Your task to perform on an android device: open app "Google Translate" (install if not already installed) Image 0: 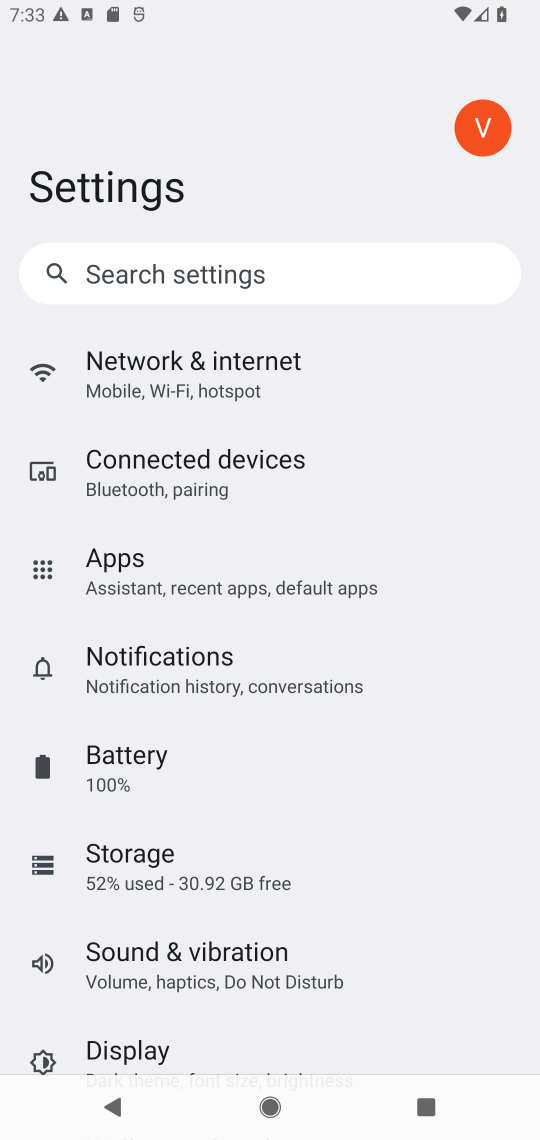
Step 0: press home button
Your task to perform on an android device: open app "Google Translate" (install if not already installed) Image 1: 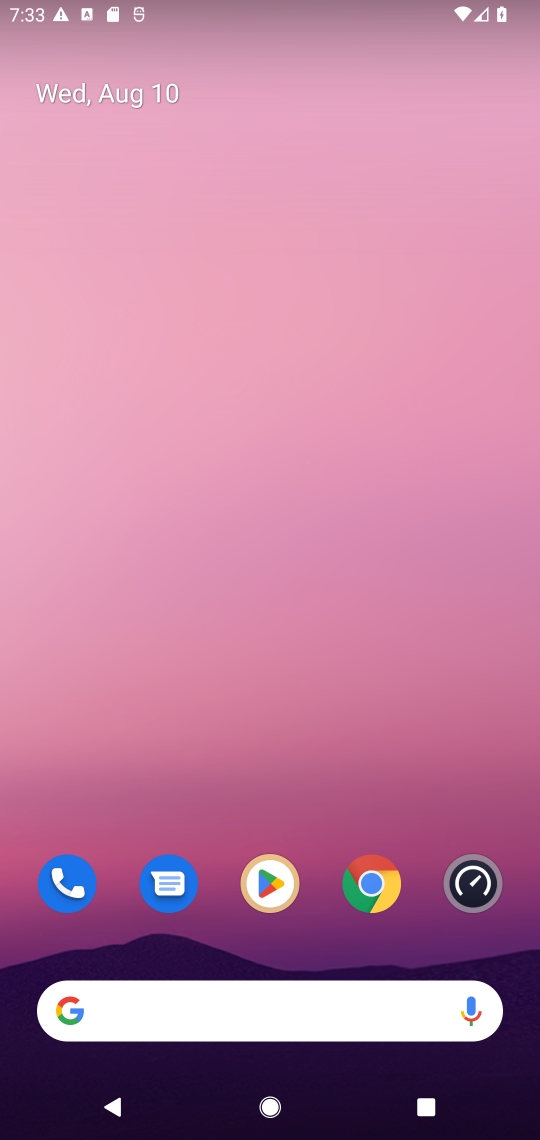
Step 1: drag from (313, 764) to (280, 83)
Your task to perform on an android device: open app "Google Translate" (install if not already installed) Image 2: 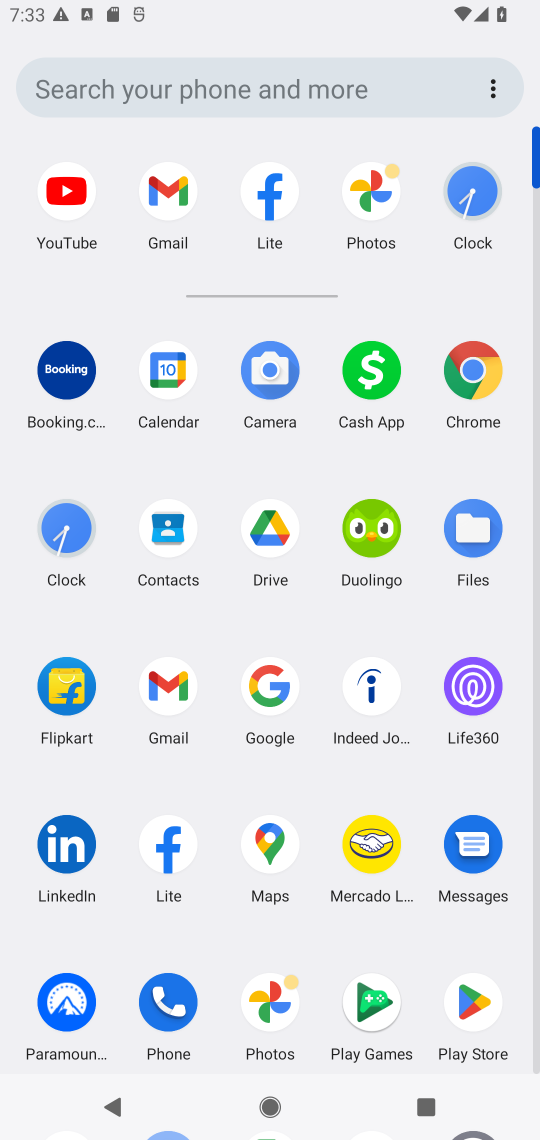
Step 2: click (476, 1001)
Your task to perform on an android device: open app "Google Translate" (install if not already installed) Image 3: 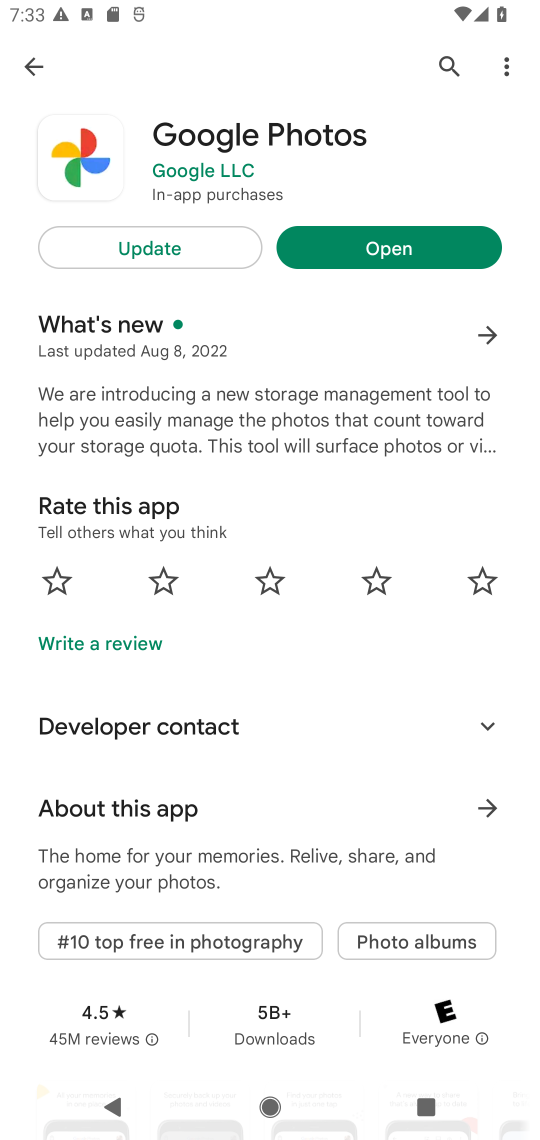
Step 3: click (453, 58)
Your task to perform on an android device: open app "Google Translate" (install if not already installed) Image 4: 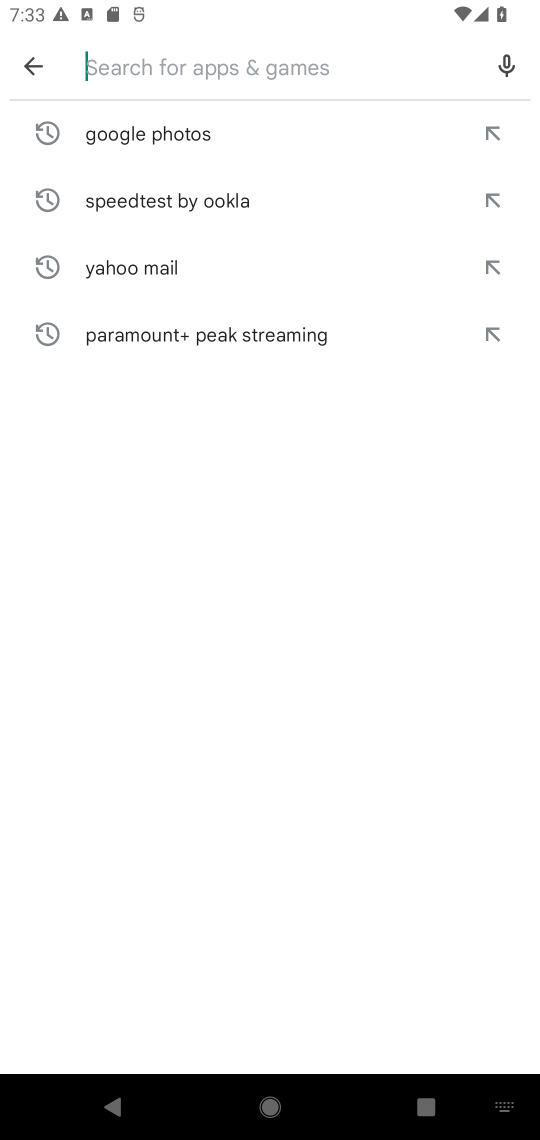
Step 4: type "Google Translate"
Your task to perform on an android device: open app "Google Translate" (install if not already installed) Image 5: 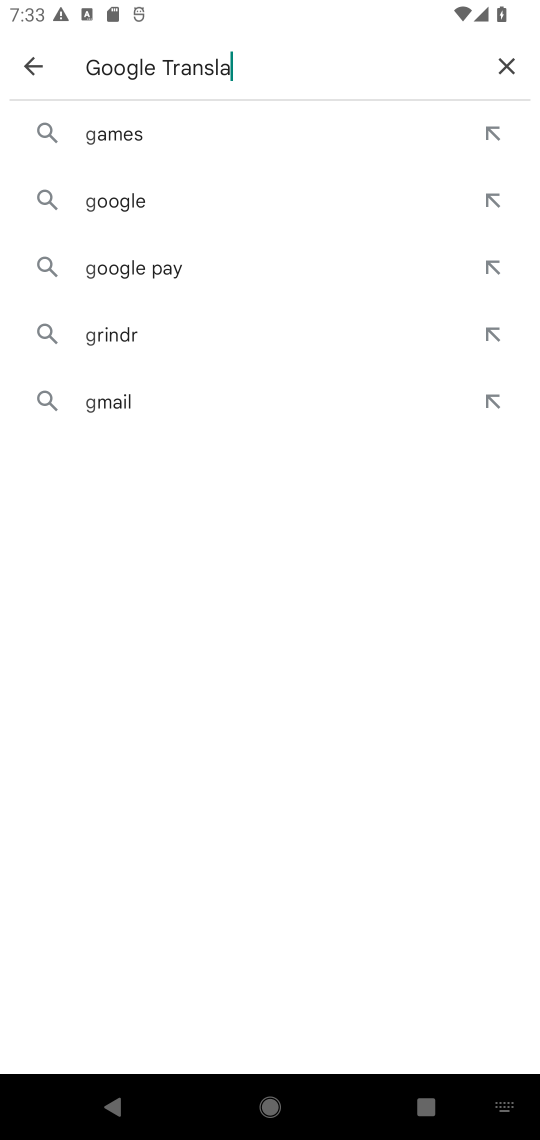
Step 5: type ""
Your task to perform on an android device: open app "Google Translate" (install if not already installed) Image 6: 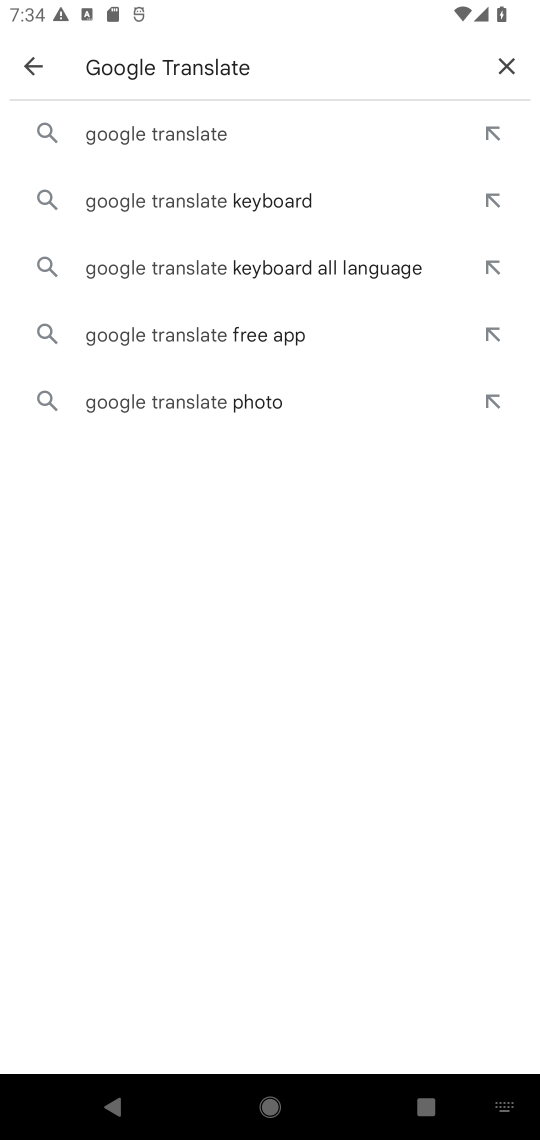
Step 6: click (212, 127)
Your task to perform on an android device: open app "Google Translate" (install if not already installed) Image 7: 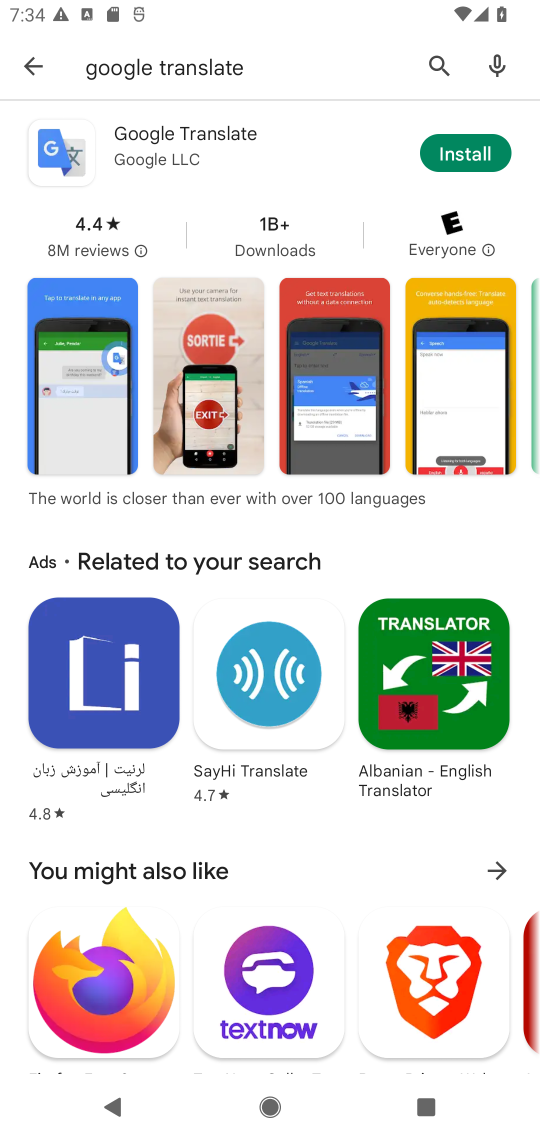
Step 7: click (464, 149)
Your task to perform on an android device: open app "Google Translate" (install if not already installed) Image 8: 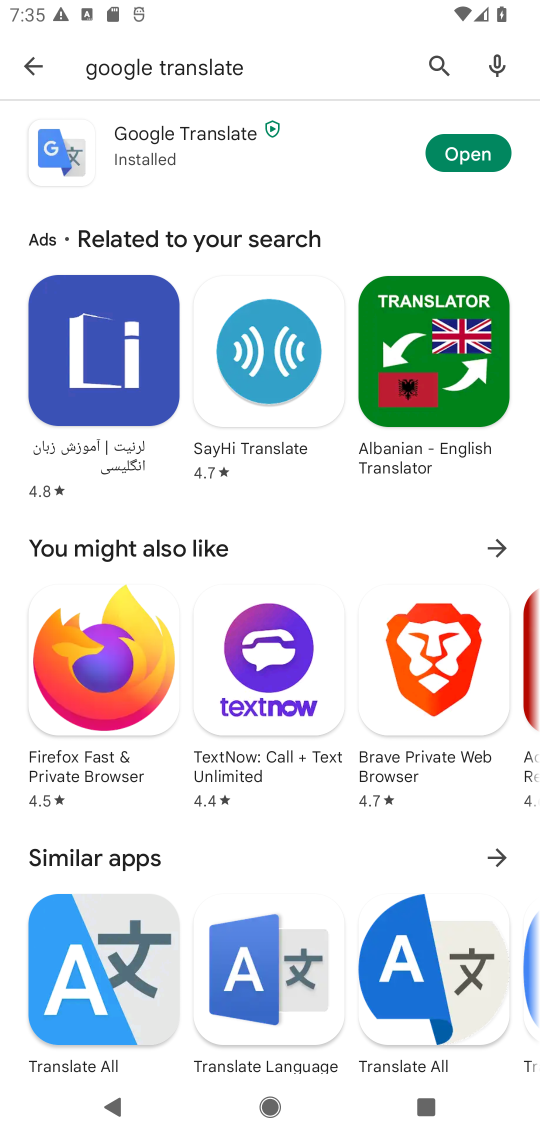
Step 8: task complete